Your task to perform on an android device: Search for vegetarian restaurants on Maps Image 0: 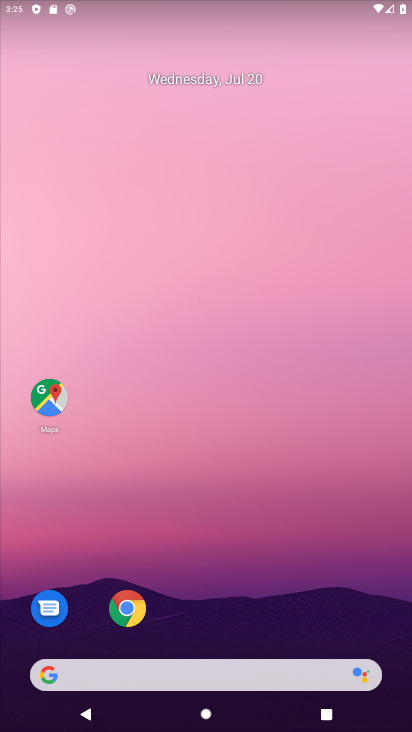
Step 0: click (44, 410)
Your task to perform on an android device: Search for vegetarian restaurants on Maps Image 1: 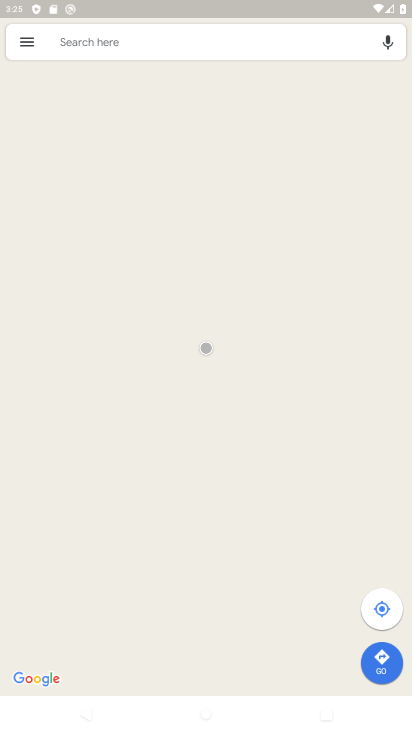
Step 1: click (202, 40)
Your task to perform on an android device: Search for vegetarian restaurants on Maps Image 2: 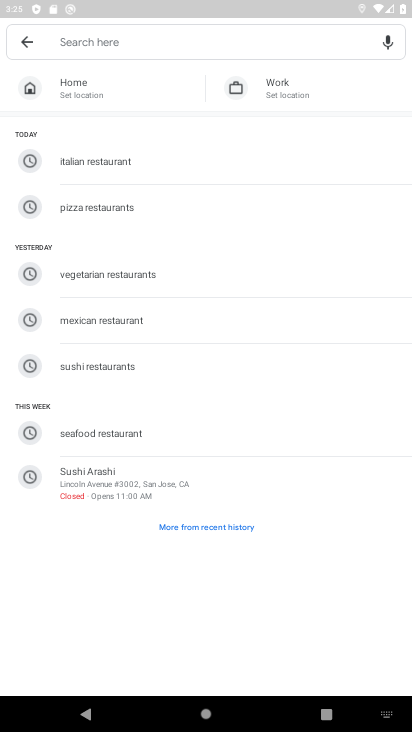
Step 2: type "vegetarian"
Your task to perform on an android device: Search for vegetarian restaurants on Maps Image 3: 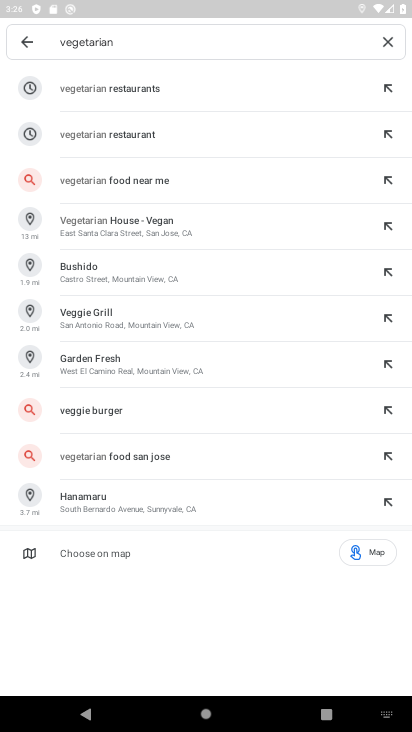
Step 3: click (161, 102)
Your task to perform on an android device: Search for vegetarian restaurants on Maps Image 4: 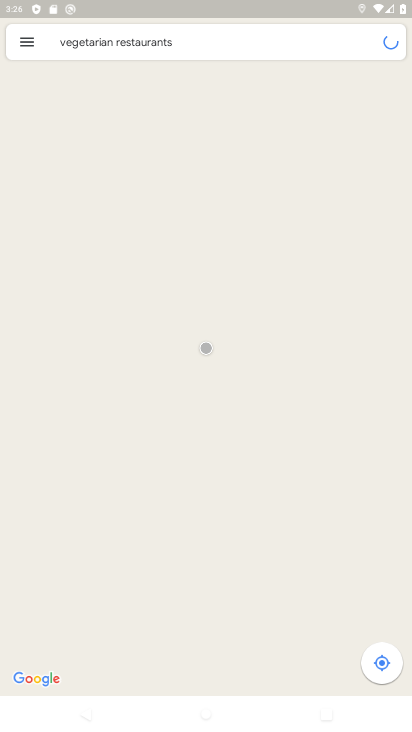
Step 4: task complete